Your task to perform on an android device: Add "jbl charge 4" to the cart on newegg Image 0: 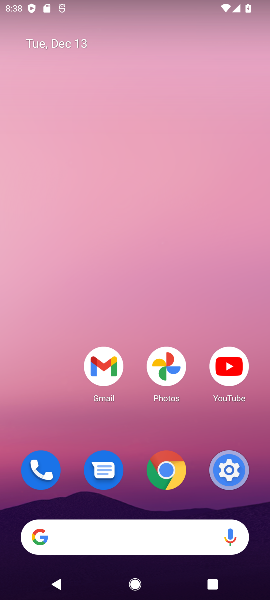
Step 0: click (58, 540)
Your task to perform on an android device: Add "jbl charge 4" to the cart on newegg Image 1: 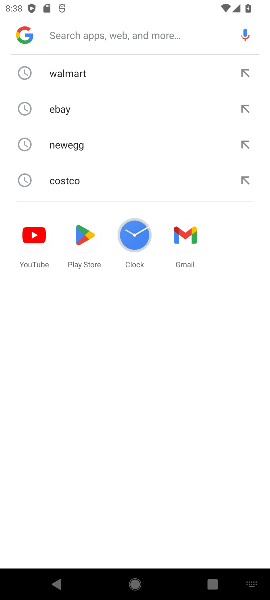
Step 1: type "newegg"
Your task to perform on an android device: Add "jbl charge 4" to the cart on newegg Image 2: 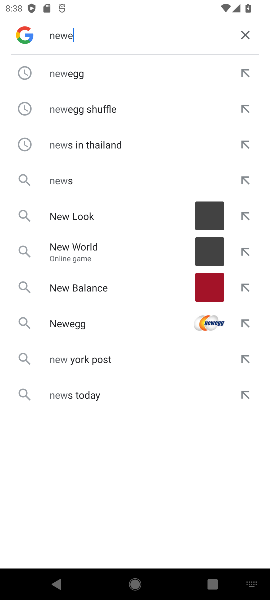
Step 2: press enter
Your task to perform on an android device: Add "jbl charge 4" to the cart on newegg Image 3: 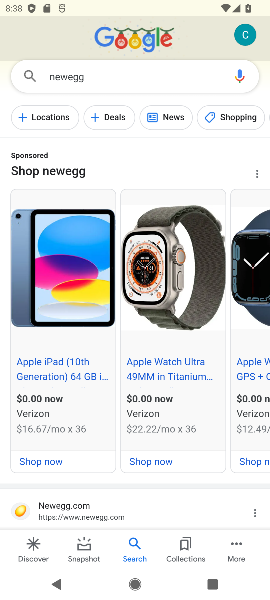
Step 3: drag from (107, 498) to (109, 255)
Your task to perform on an android device: Add "jbl charge 4" to the cart on newegg Image 4: 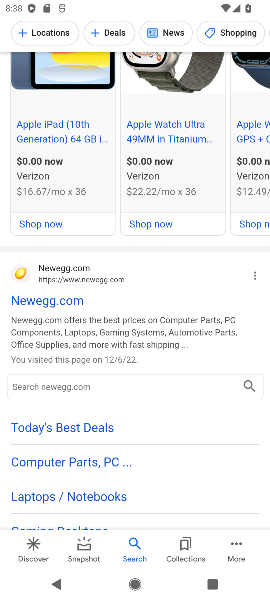
Step 4: click (45, 301)
Your task to perform on an android device: Add "jbl charge 4" to the cart on newegg Image 5: 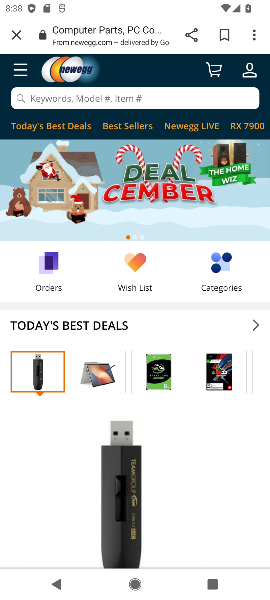
Step 5: task complete